Your task to perform on an android device: Open internet settings Image 0: 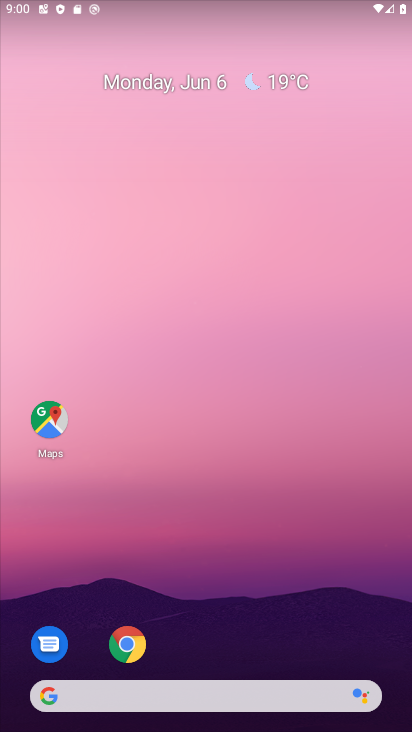
Step 0: drag from (179, 687) to (312, 157)
Your task to perform on an android device: Open internet settings Image 1: 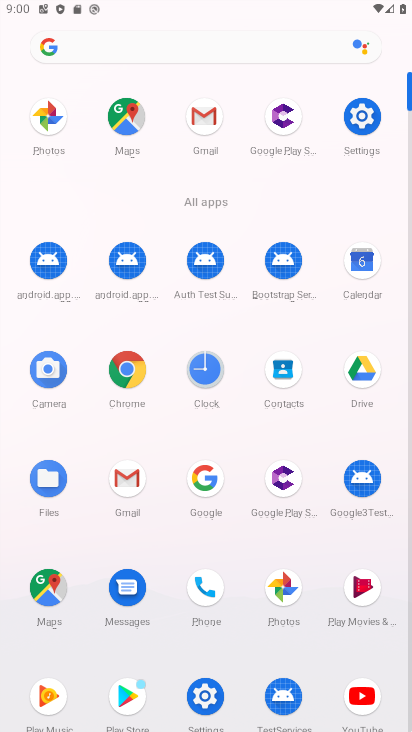
Step 1: click (206, 702)
Your task to perform on an android device: Open internet settings Image 2: 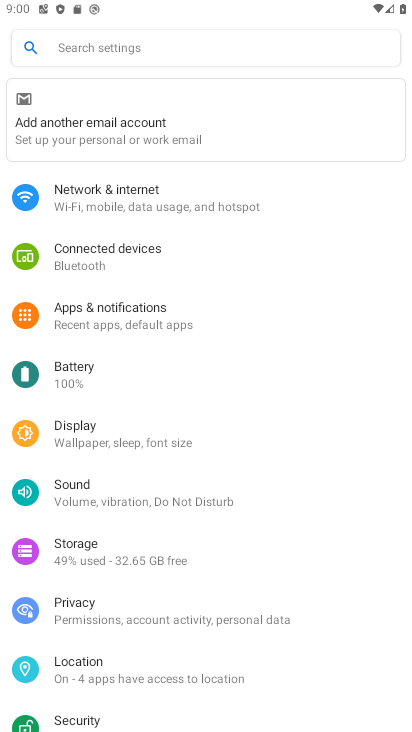
Step 2: click (172, 214)
Your task to perform on an android device: Open internet settings Image 3: 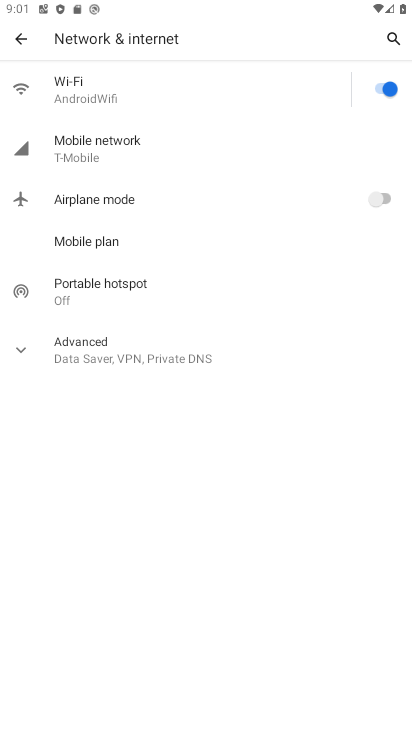
Step 3: click (173, 151)
Your task to perform on an android device: Open internet settings Image 4: 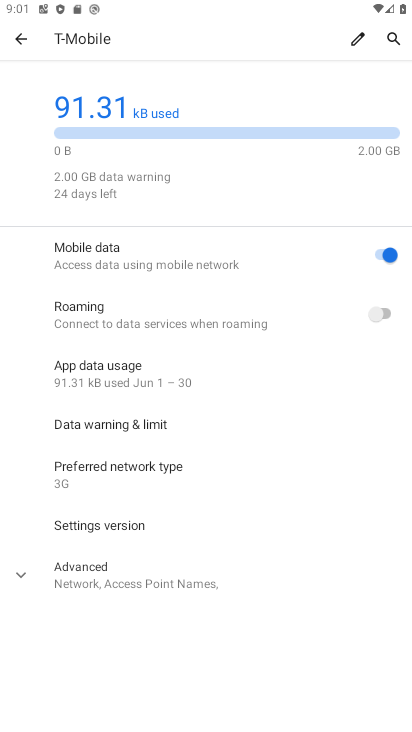
Step 4: task complete